Your task to perform on an android device: Check the news Image 0: 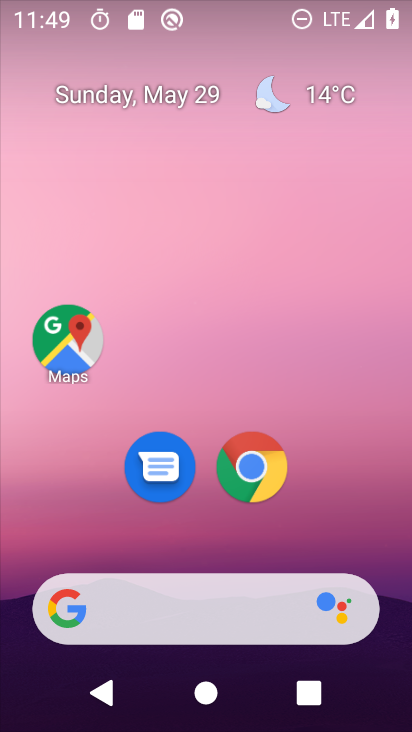
Step 0: drag from (214, 533) to (207, 178)
Your task to perform on an android device: Check the news Image 1: 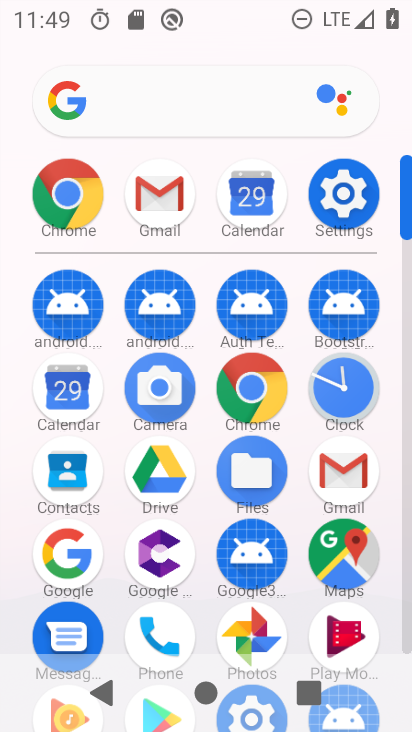
Step 1: click (58, 566)
Your task to perform on an android device: Check the news Image 2: 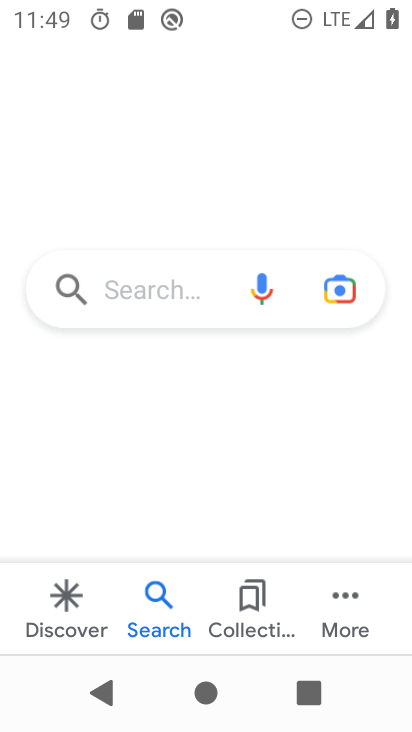
Step 2: click (181, 280)
Your task to perform on an android device: Check the news Image 3: 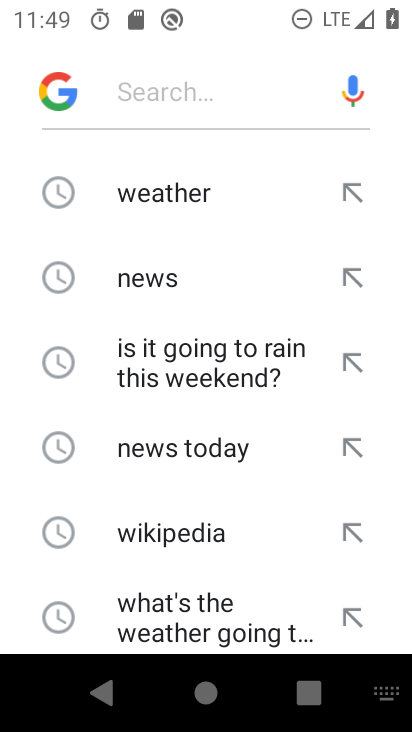
Step 3: click (160, 270)
Your task to perform on an android device: Check the news Image 4: 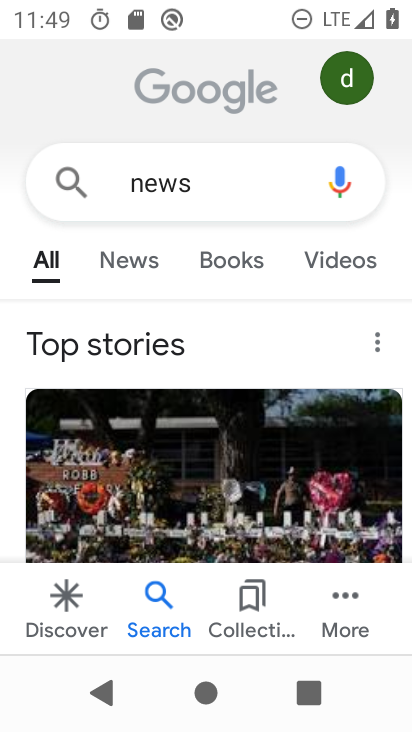
Step 4: click (121, 262)
Your task to perform on an android device: Check the news Image 5: 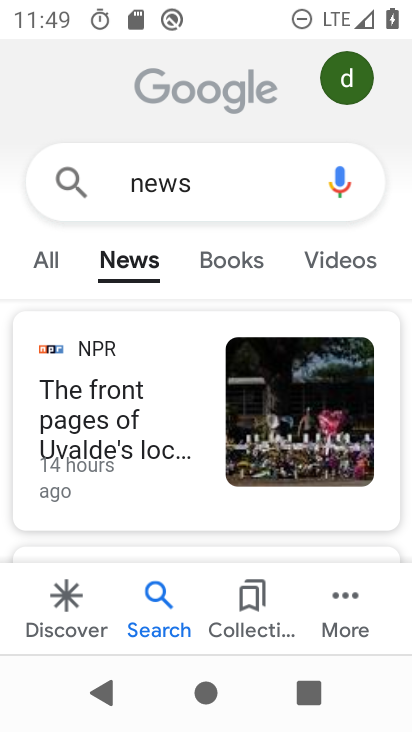
Step 5: task complete